Your task to perform on an android device: Go to network settings Image 0: 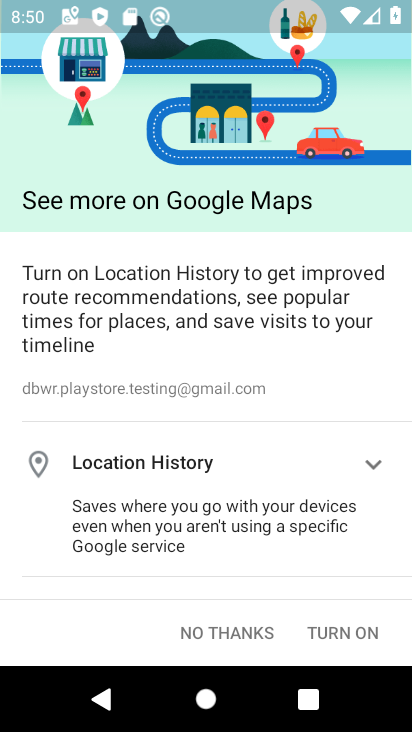
Step 0: press home button
Your task to perform on an android device: Go to network settings Image 1: 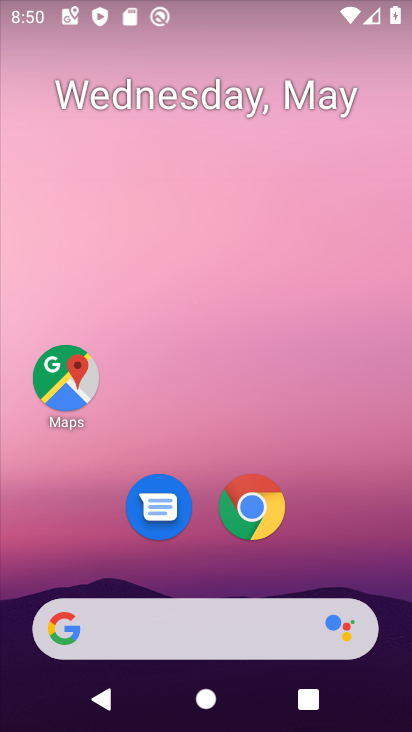
Step 1: drag from (346, 535) to (300, 198)
Your task to perform on an android device: Go to network settings Image 2: 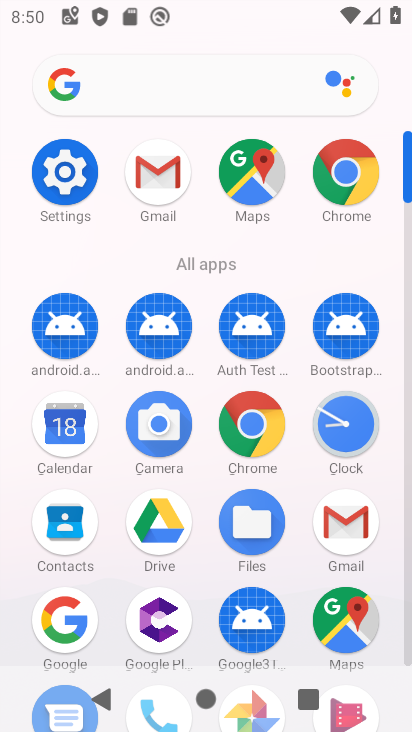
Step 2: click (46, 175)
Your task to perform on an android device: Go to network settings Image 3: 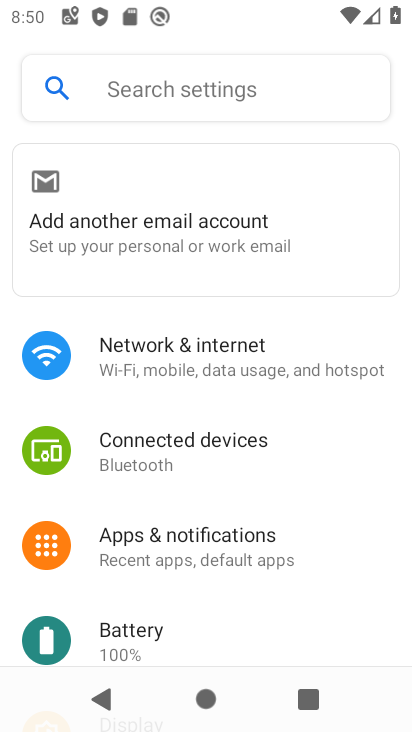
Step 3: click (159, 359)
Your task to perform on an android device: Go to network settings Image 4: 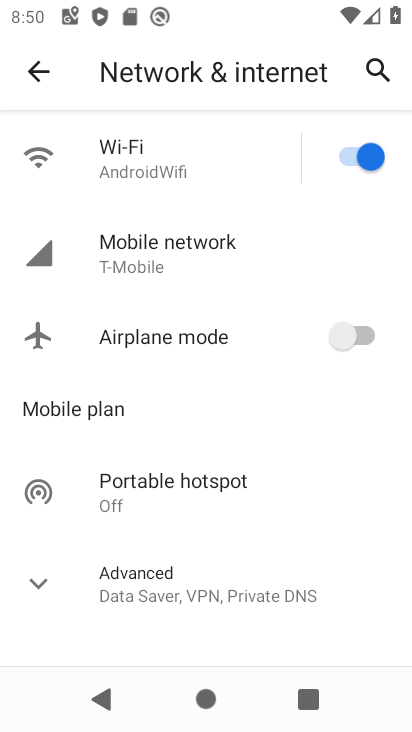
Step 4: task complete